Your task to perform on an android device: What's the weather today? Image 0: 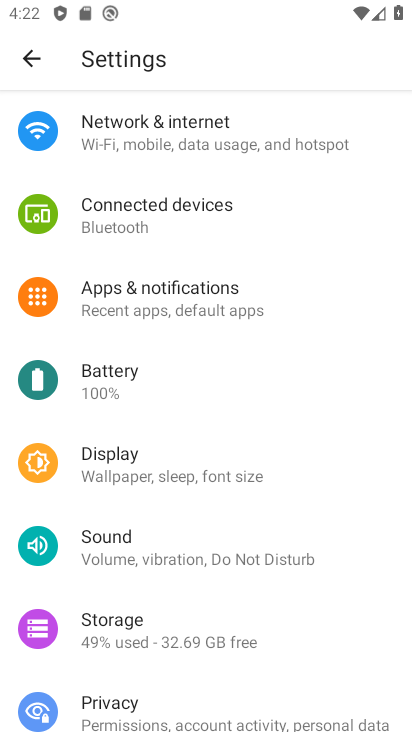
Step 0: press home button
Your task to perform on an android device: What's the weather today? Image 1: 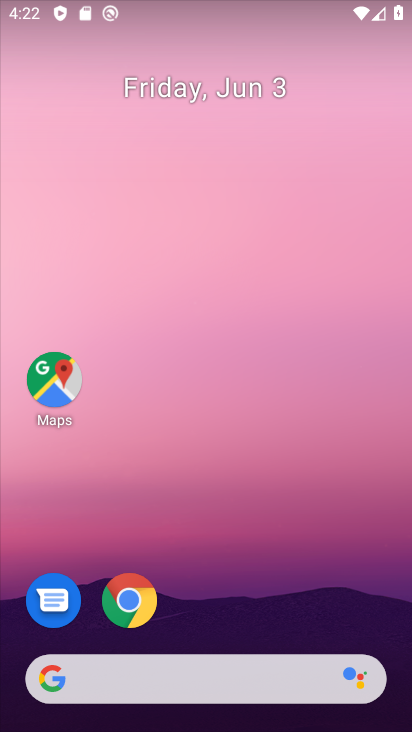
Step 1: click (150, 659)
Your task to perform on an android device: What's the weather today? Image 2: 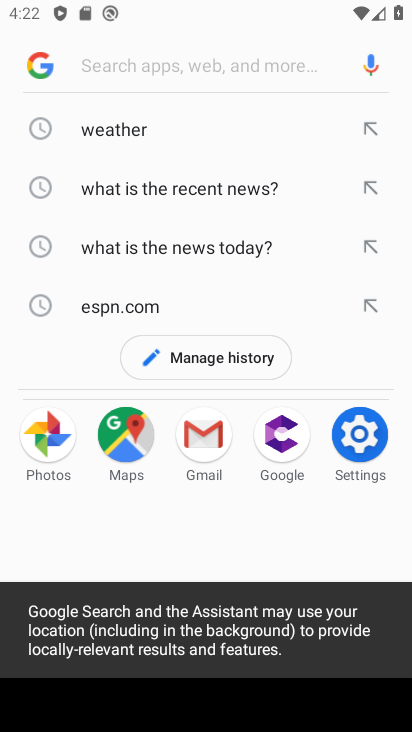
Step 2: click (167, 133)
Your task to perform on an android device: What's the weather today? Image 3: 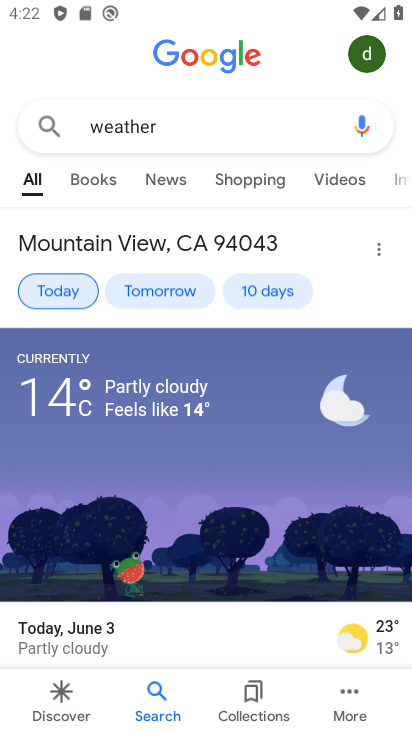
Step 3: task complete